Your task to perform on an android device: Play the last video I watched on Youtube Image 0: 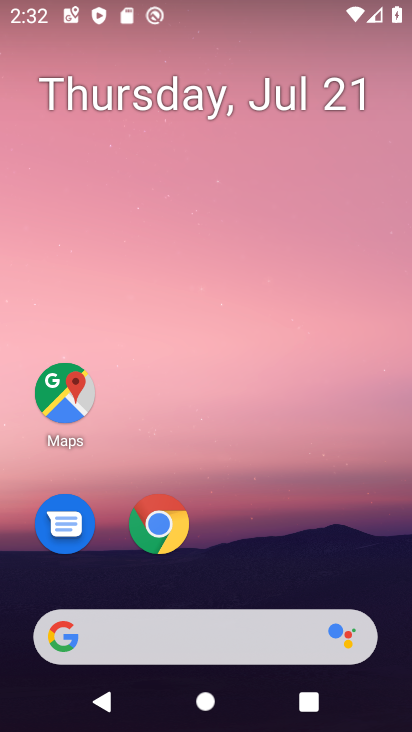
Step 0: drag from (258, 521) to (273, 97)
Your task to perform on an android device: Play the last video I watched on Youtube Image 1: 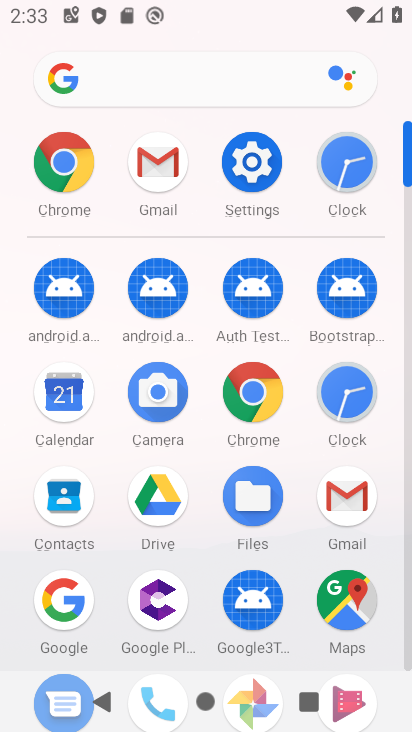
Step 1: drag from (212, 555) to (242, 30)
Your task to perform on an android device: Play the last video I watched on Youtube Image 2: 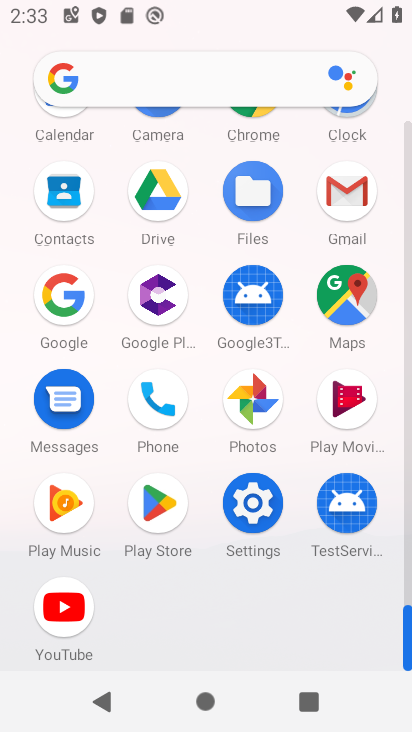
Step 2: click (64, 595)
Your task to perform on an android device: Play the last video I watched on Youtube Image 3: 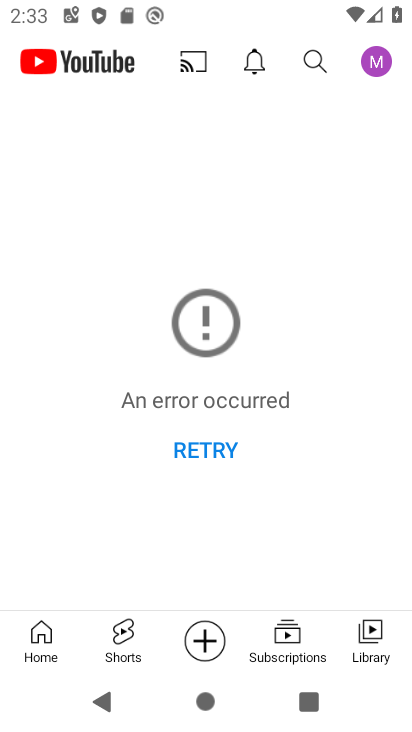
Step 3: click (371, 629)
Your task to perform on an android device: Play the last video I watched on Youtube Image 4: 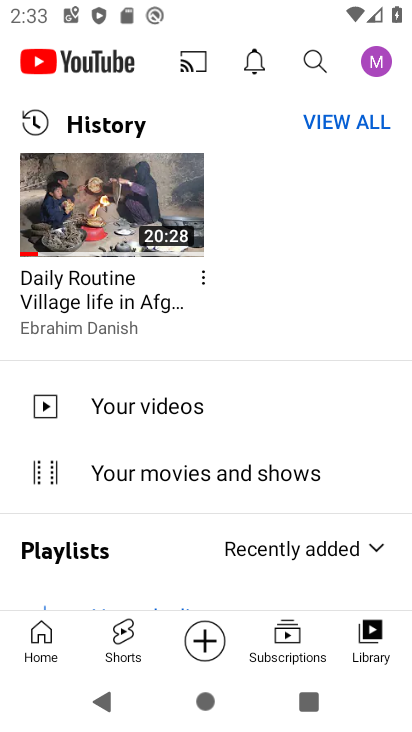
Step 4: click (96, 200)
Your task to perform on an android device: Play the last video I watched on Youtube Image 5: 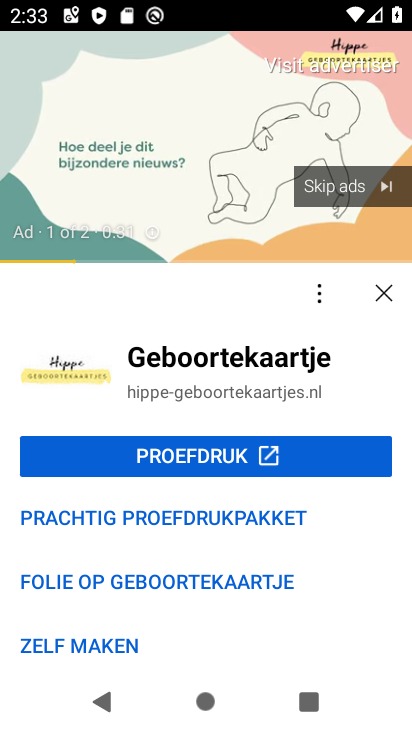
Step 5: click (354, 185)
Your task to perform on an android device: Play the last video I watched on Youtube Image 6: 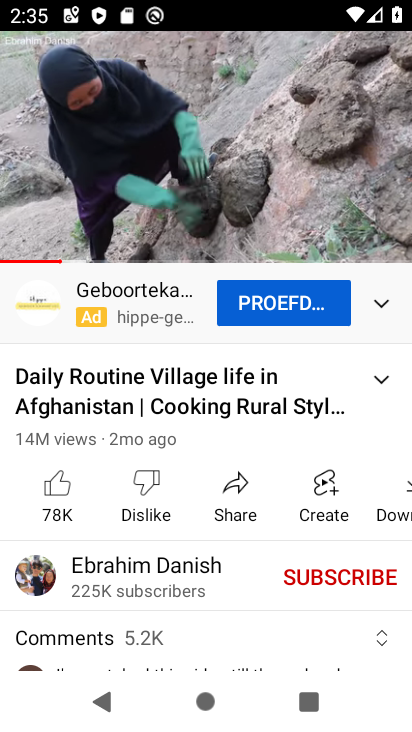
Step 6: task complete